Your task to perform on an android device: turn off wifi Image 0: 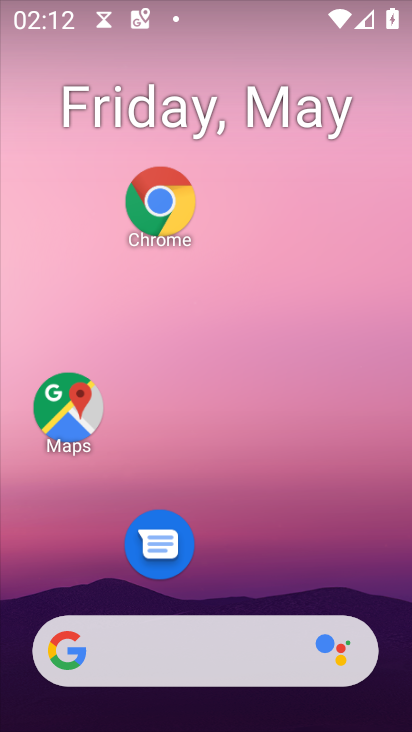
Step 0: drag from (247, 605) to (265, 217)
Your task to perform on an android device: turn off wifi Image 1: 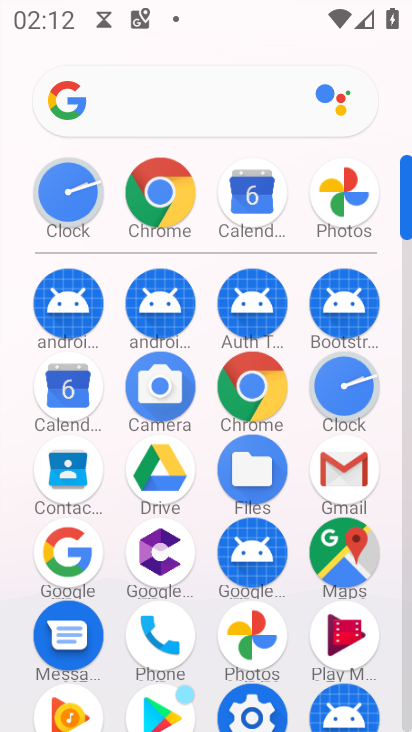
Step 1: click (247, 719)
Your task to perform on an android device: turn off wifi Image 2: 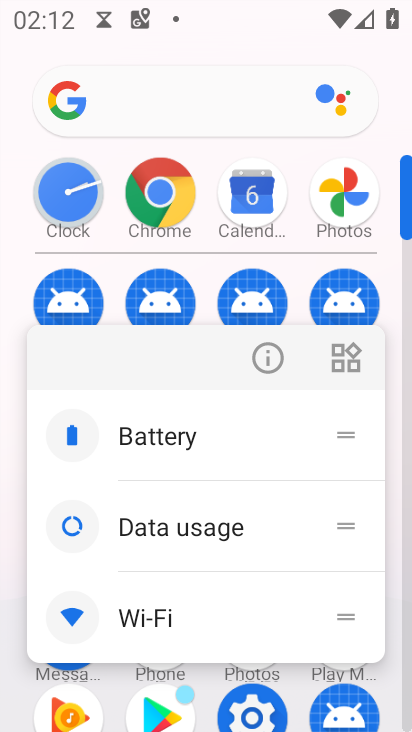
Step 2: click (270, 357)
Your task to perform on an android device: turn off wifi Image 3: 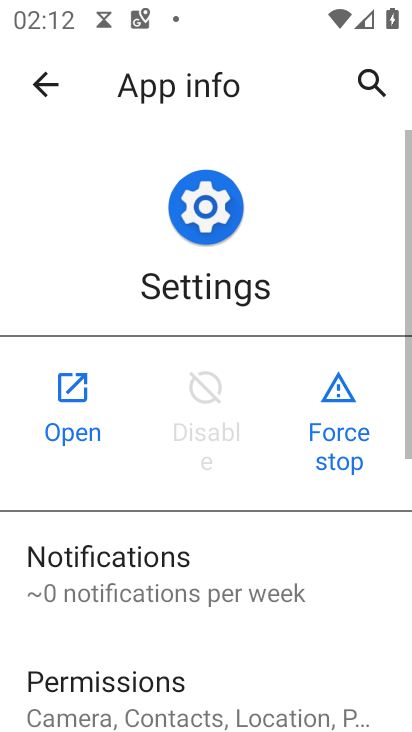
Step 3: click (87, 415)
Your task to perform on an android device: turn off wifi Image 4: 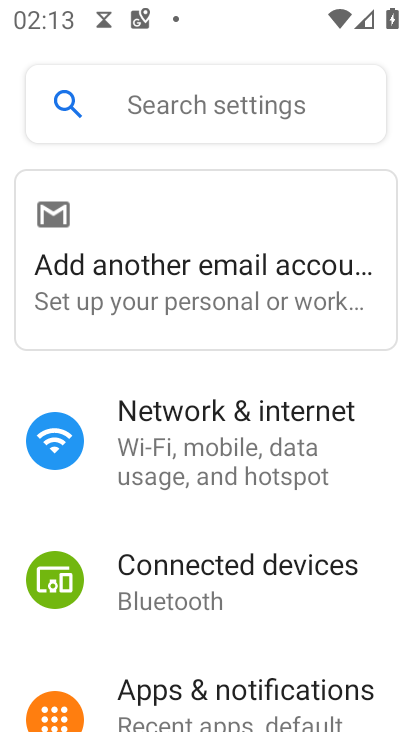
Step 4: click (224, 437)
Your task to perform on an android device: turn off wifi Image 5: 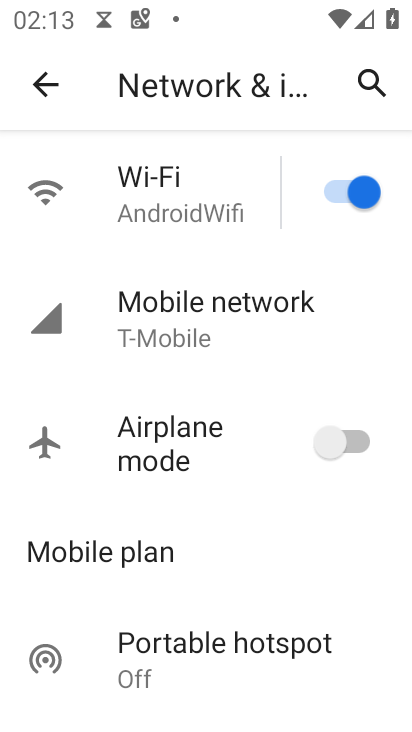
Step 5: click (357, 203)
Your task to perform on an android device: turn off wifi Image 6: 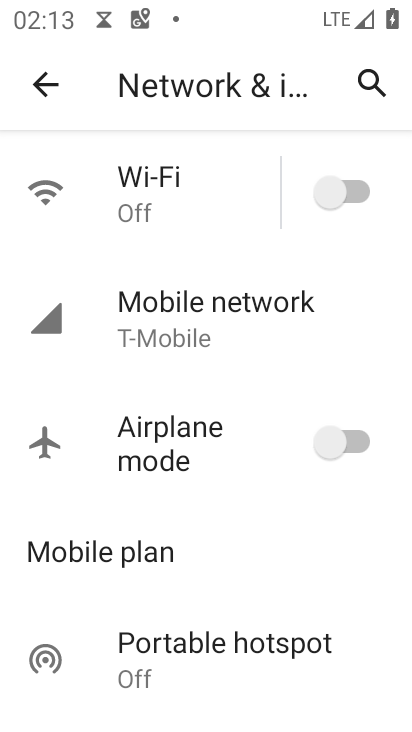
Step 6: task complete